Your task to perform on an android device: change the upload size in google photos Image 0: 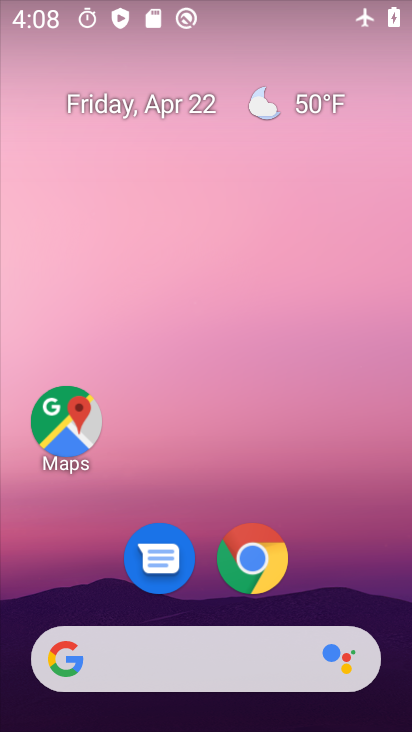
Step 0: drag from (338, 397) to (342, 239)
Your task to perform on an android device: change the upload size in google photos Image 1: 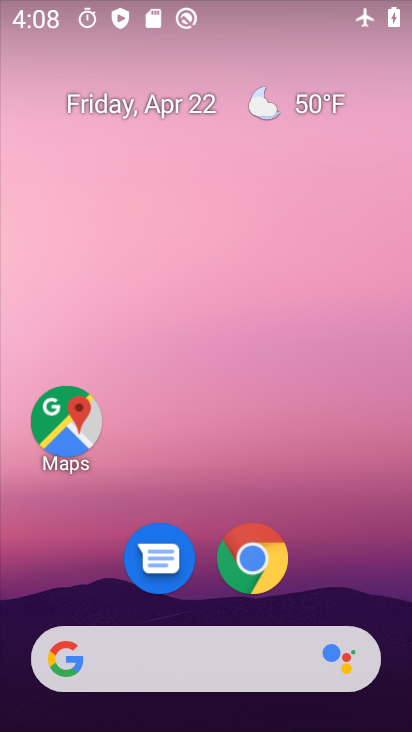
Step 1: drag from (348, 532) to (317, 110)
Your task to perform on an android device: change the upload size in google photos Image 2: 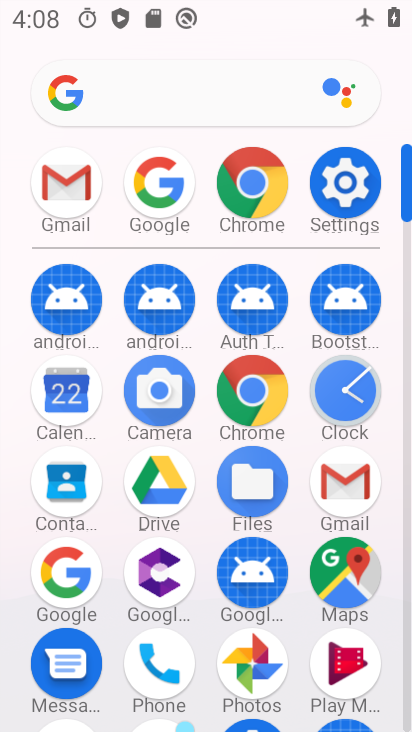
Step 2: click (280, 656)
Your task to perform on an android device: change the upload size in google photos Image 3: 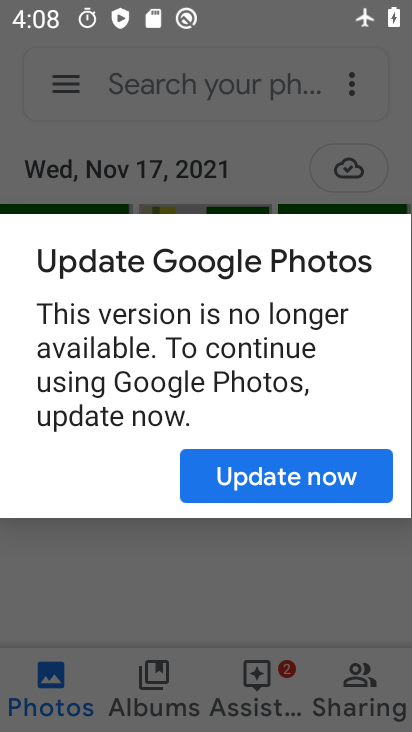
Step 3: click (235, 502)
Your task to perform on an android device: change the upload size in google photos Image 4: 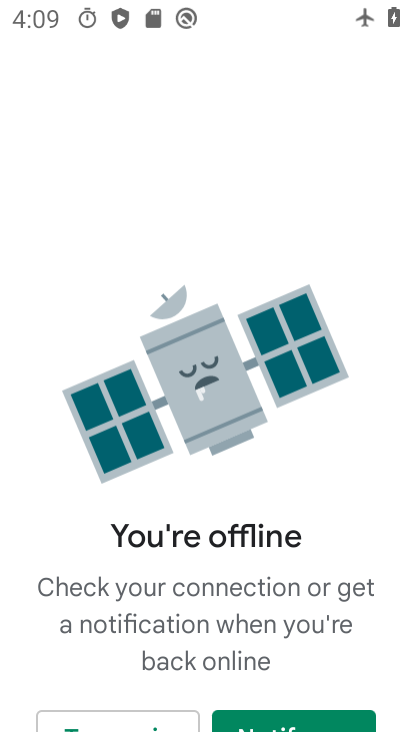
Step 4: task complete